Your task to perform on an android device: turn off data saver in the chrome app Image 0: 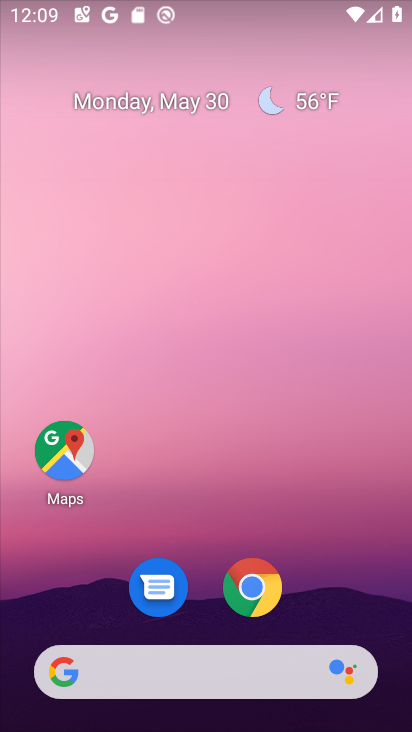
Step 0: click (251, 567)
Your task to perform on an android device: turn off data saver in the chrome app Image 1: 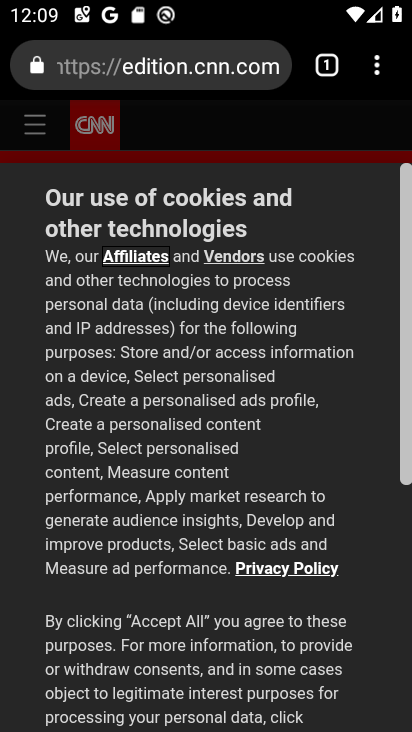
Step 1: click (386, 73)
Your task to perform on an android device: turn off data saver in the chrome app Image 2: 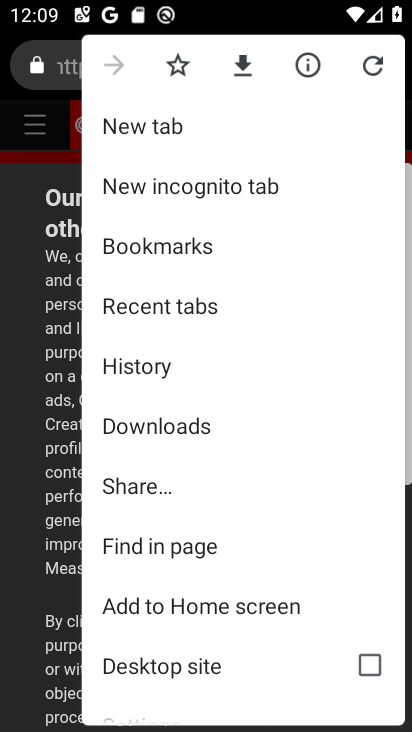
Step 2: drag from (204, 639) to (224, 326)
Your task to perform on an android device: turn off data saver in the chrome app Image 3: 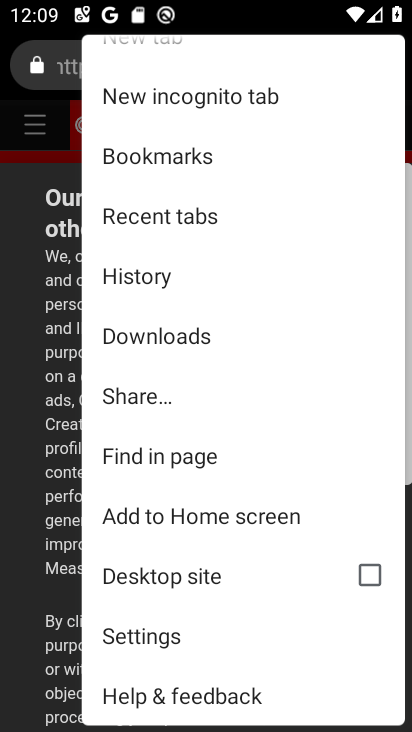
Step 3: click (190, 634)
Your task to perform on an android device: turn off data saver in the chrome app Image 4: 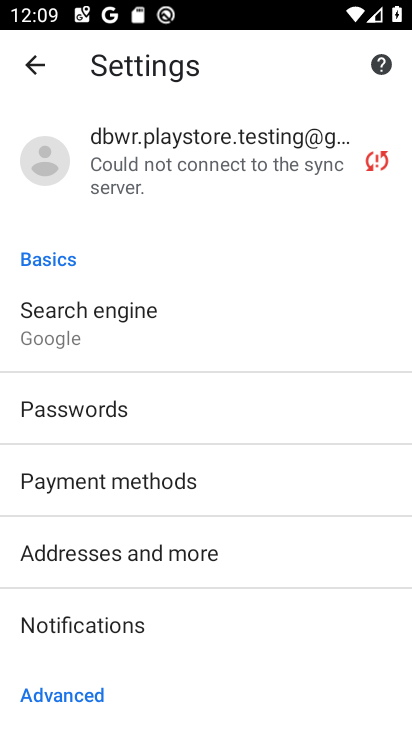
Step 4: drag from (189, 666) to (179, 120)
Your task to perform on an android device: turn off data saver in the chrome app Image 5: 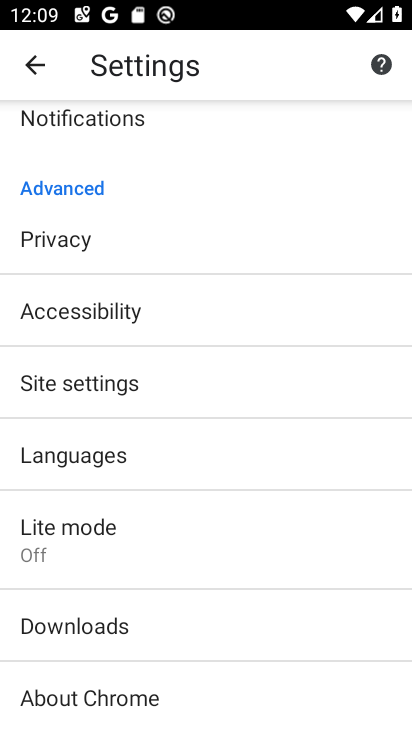
Step 5: click (99, 561)
Your task to perform on an android device: turn off data saver in the chrome app Image 6: 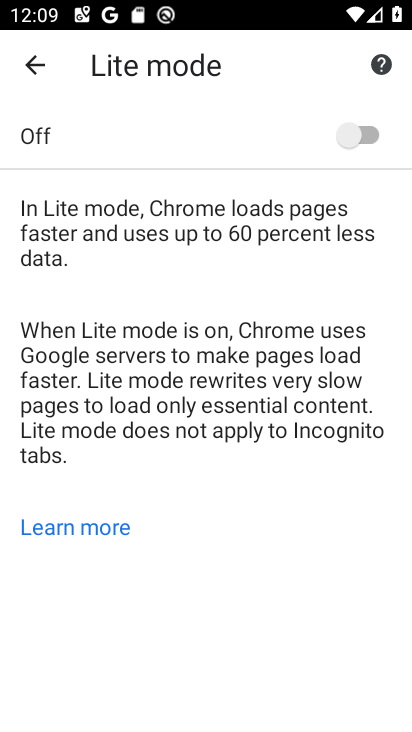
Step 6: task complete